Your task to perform on an android device: Open calendar and show me the first week of next month Image 0: 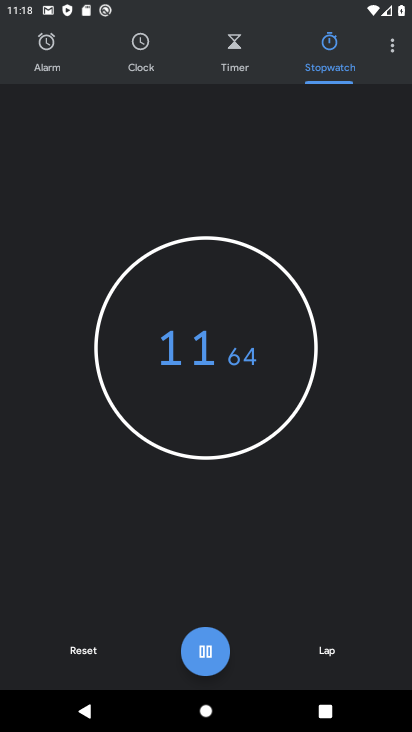
Step 0: press back button
Your task to perform on an android device: Open calendar and show me the first week of next month Image 1: 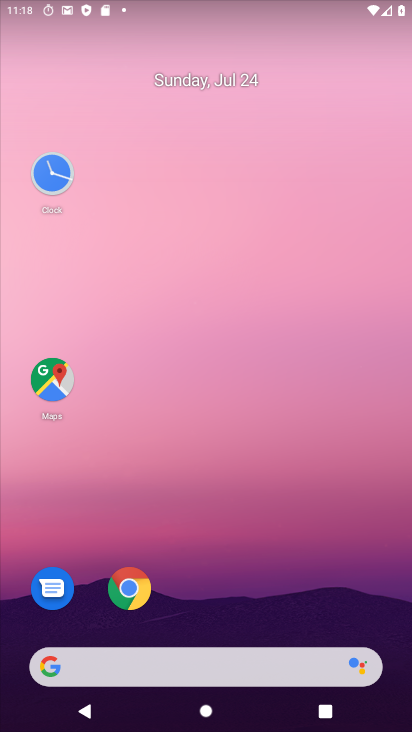
Step 1: drag from (251, 571) to (257, 165)
Your task to perform on an android device: Open calendar and show me the first week of next month Image 2: 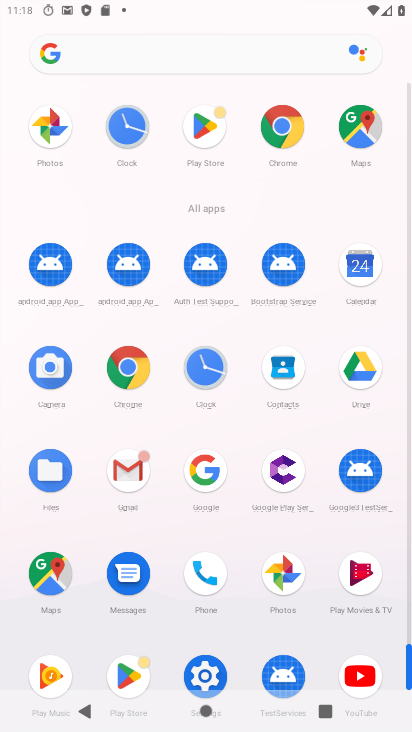
Step 2: drag from (355, 278) to (151, 178)
Your task to perform on an android device: Open calendar and show me the first week of next month Image 3: 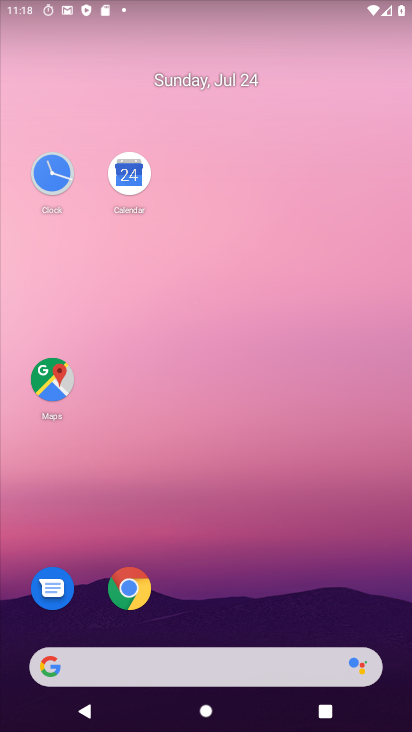
Step 3: click (134, 183)
Your task to perform on an android device: Open calendar and show me the first week of next month Image 4: 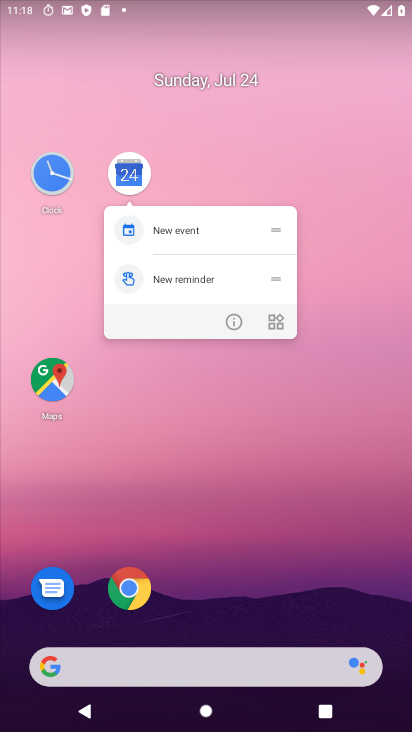
Step 4: click (134, 183)
Your task to perform on an android device: Open calendar and show me the first week of next month Image 5: 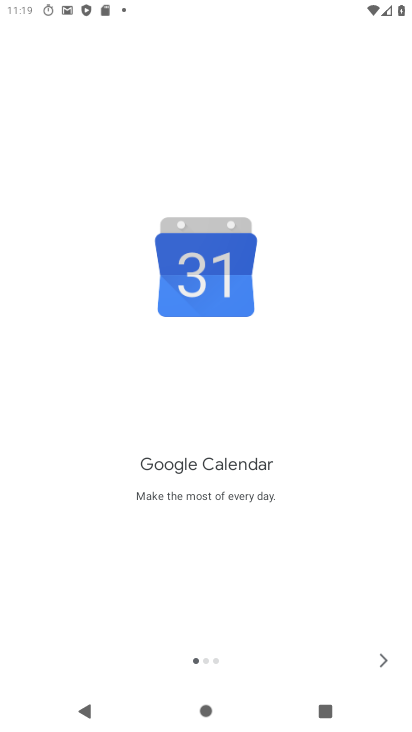
Step 5: click (389, 652)
Your task to perform on an android device: Open calendar and show me the first week of next month Image 6: 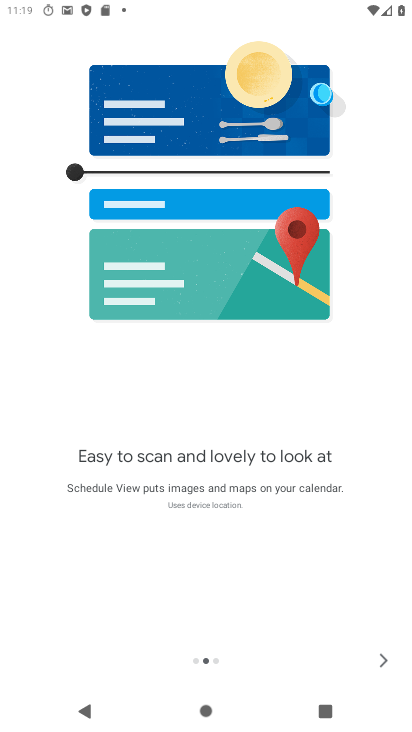
Step 6: click (389, 652)
Your task to perform on an android device: Open calendar and show me the first week of next month Image 7: 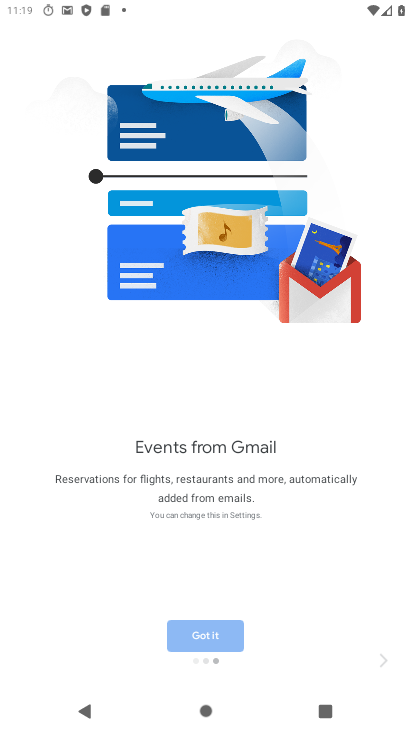
Step 7: click (389, 652)
Your task to perform on an android device: Open calendar and show me the first week of next month Image 8: 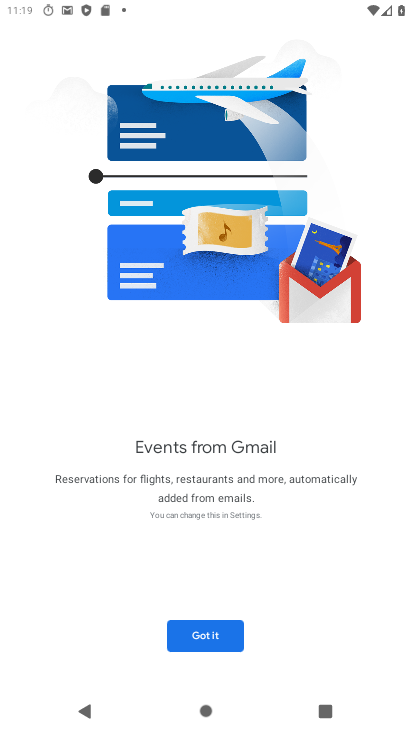
Step 8: click (210, 642)
Your task to perform on an android device: Open calendar and show me the first week of next month Image 9: 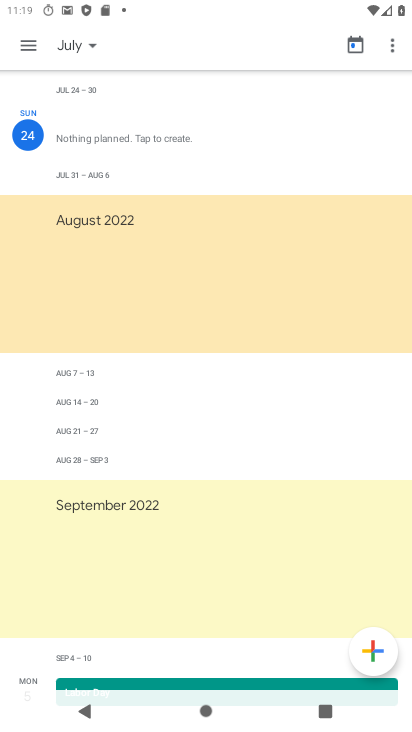
Step 9: click (70, 36)
Your task to perform on an android device: Open calendar and show me the first week of next month Image 10: 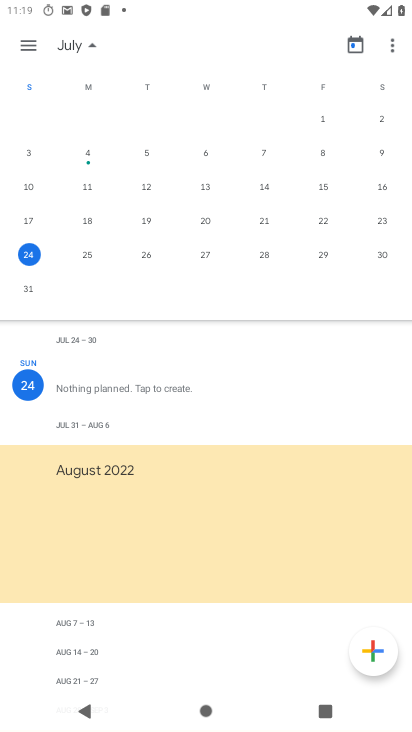
Step 10: drag from (393, 207) to (0, 96)
Your task to perform on an android device: Open calendar and show me the first week of next month Image 11: 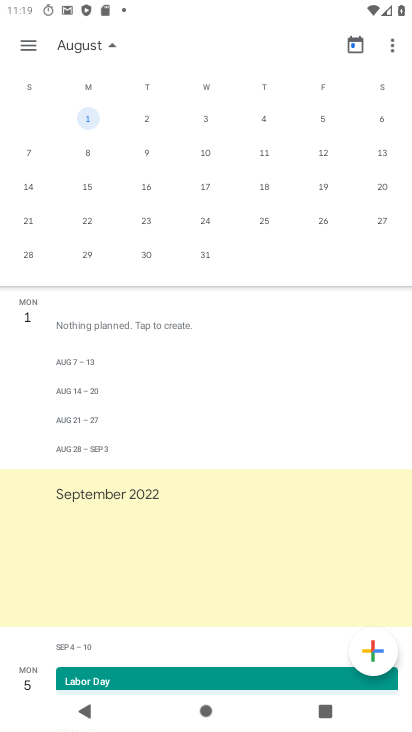
Step 11: click (41, 40)
Your task to perform on an android device: Open calendar and show me the first week of next month Image 12: 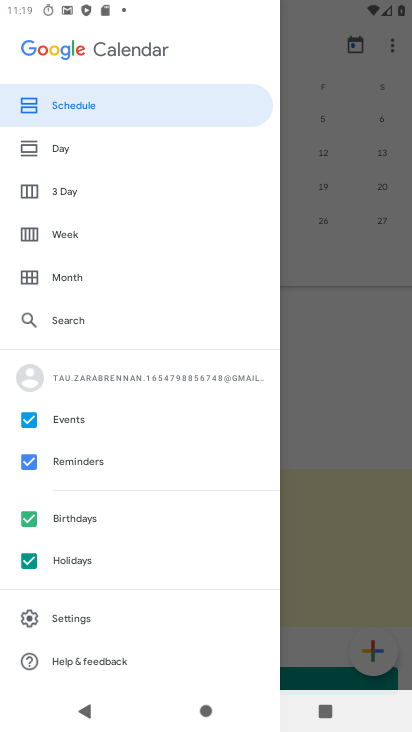
Step 12: click (102, 235)
Your task to perform on an android device: Open calendar and show me the first week of next month Image 13: 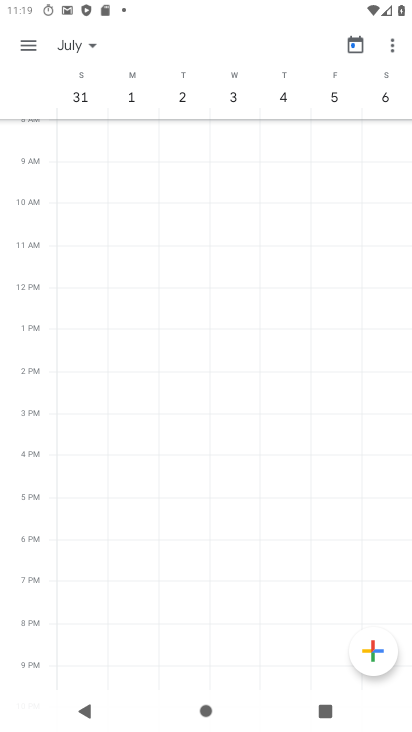
Step 13: task complete